Your task to perform on an android device: change your default location settings in chrome Image 0: 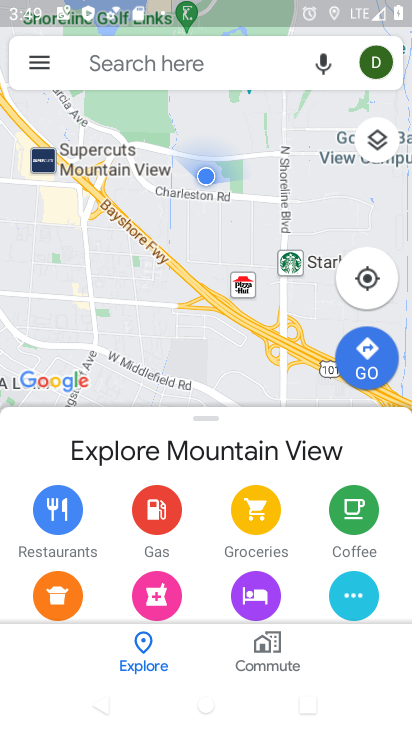
Step 0: press back button
Your task to perform on an android device: change your default location settings in chrome Image 1: 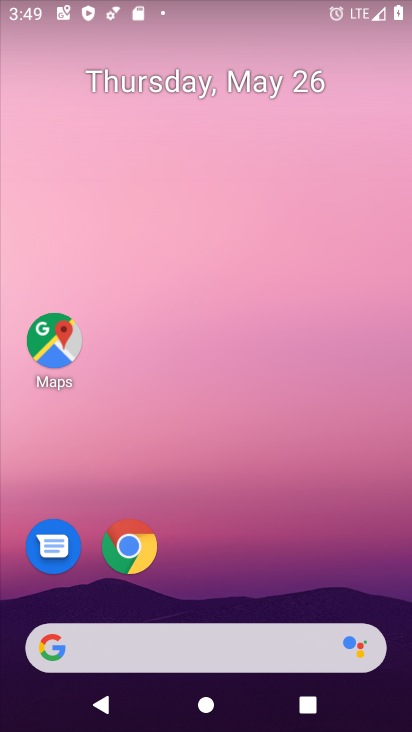
Step 1: drag from (295, 564) to (317, 179)
Your task to perform on an android device: change your default location settings in chrome Image 2: 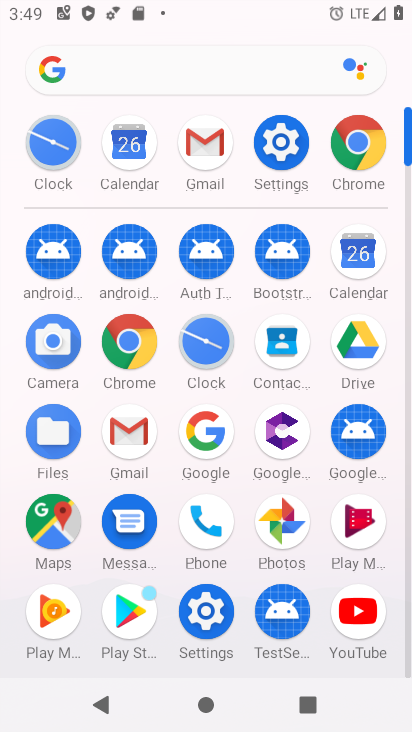
Step 2: click (369, 147)
Your task to perform on an android device: change your default location settings in chrome Image 3: 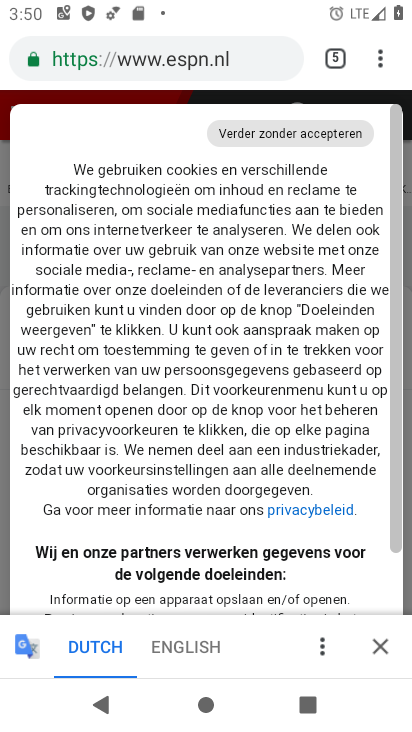
Step 3: drag from (376, 55) to (222, 584)
Your task to perform on an android device: change your default location settings in chrome Image 4: 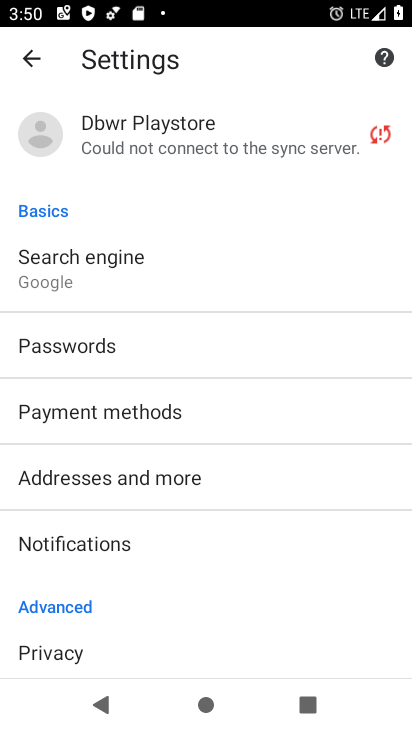
Step 4: drag from (145, 558) to (254, 33)
Your task to perform on an android device: change your default location settings in chrome Image 5: 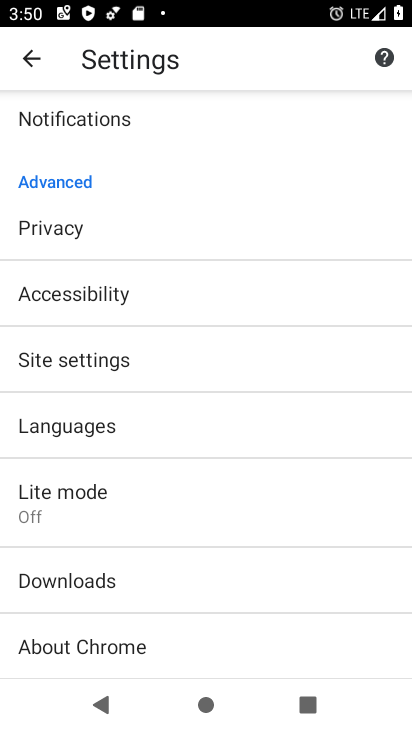
Step 5: click (106, 354)
Your task to perform on an android device: change your default location settings in chrome Image 6: 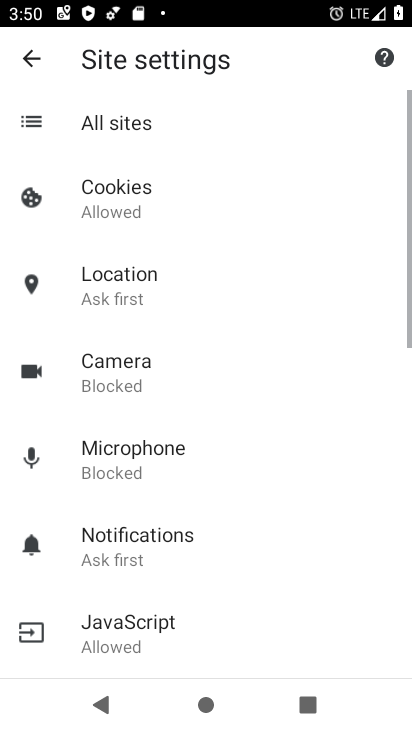
Step 6: click (137, 285)
Your task to perform on an android device: change your default location settings in chrome Image 7: 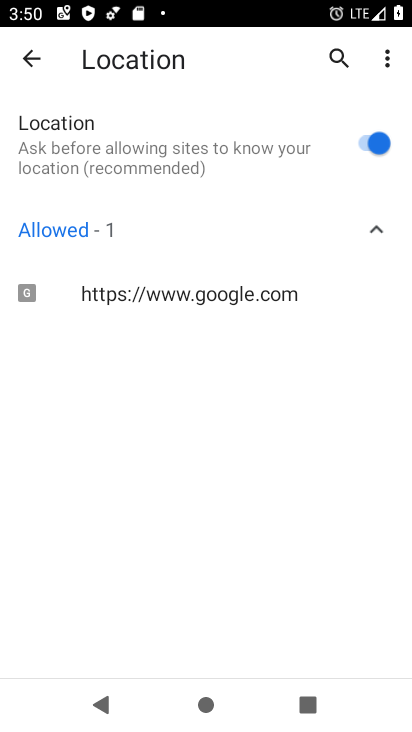
Step 7: click (218, 308)
Your task to perform on an android device: change your default location settings in chrome Image 8: 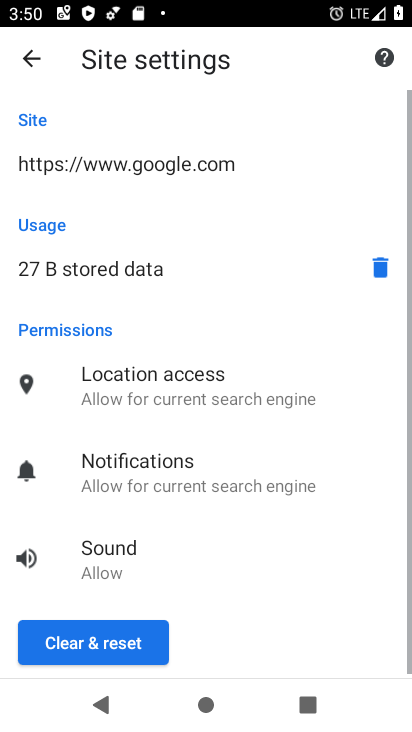
Step 8: click (167, 382)
Your task to perform on an android device: change your default location settings in chrome Image 9: 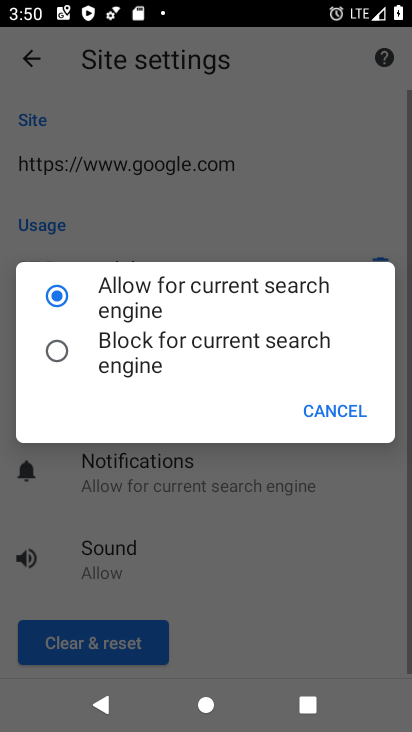
Step 9: click (164, 366)
Your task to perform on an android device: change your default location settings in chrome Image 10: 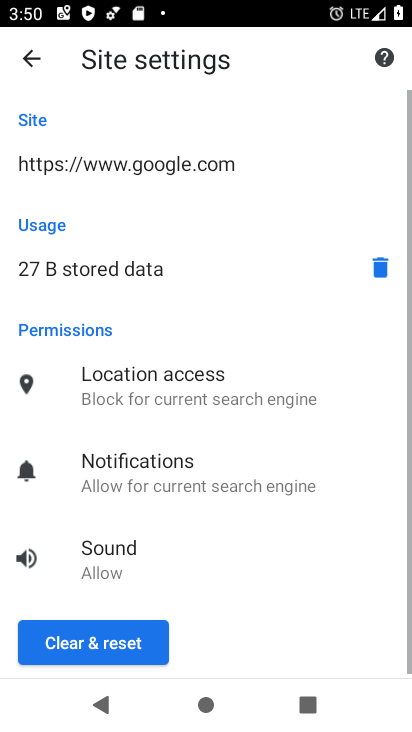
Step 10: task complete